Your task to perform on an android device: What is the recent news? Image 0: 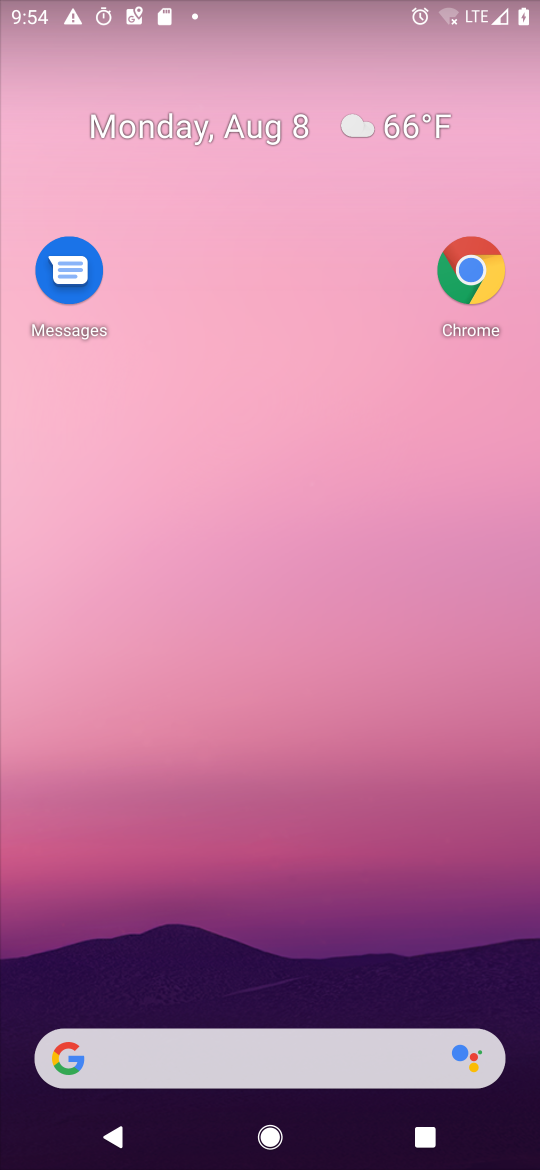
Step 0: click (295, 314)
Your task to perform on an android device: What is the recent news? Image 1: 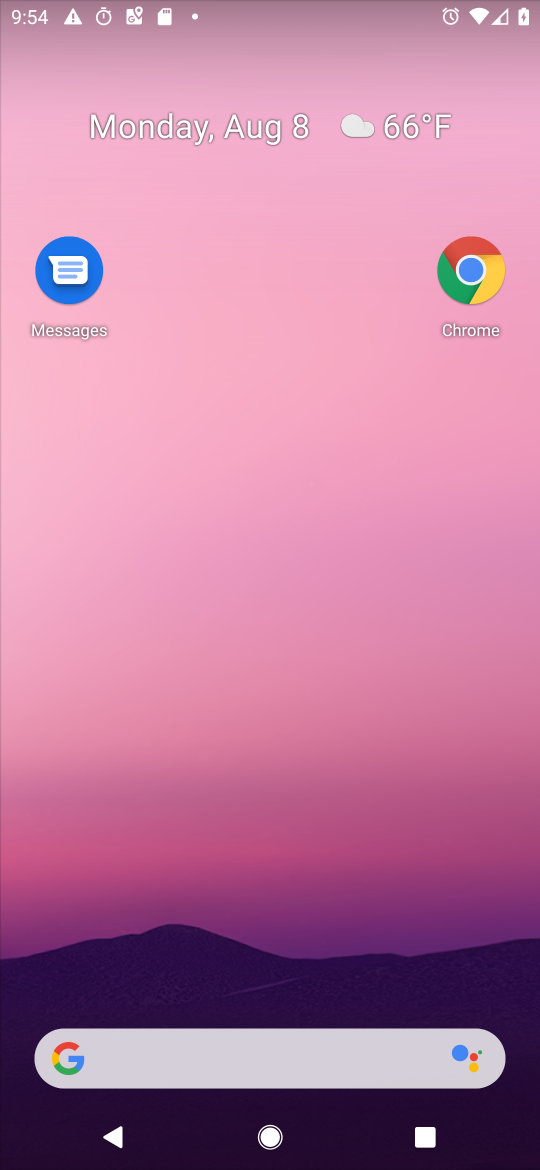
Step 1: drag from (350, 74) to (416, 8)
Your task to perform on an android device: What is the recent news? Image 2: 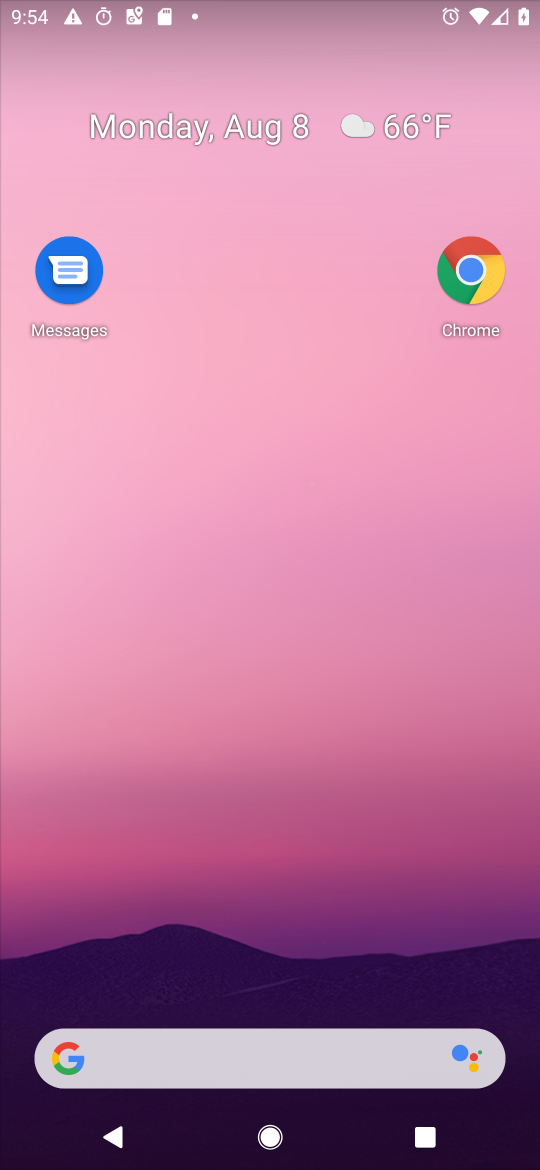
Step 2: drag from (315, 889) to (338, 103)
Your task to perform on an android device: What is the recent news? Image 3: 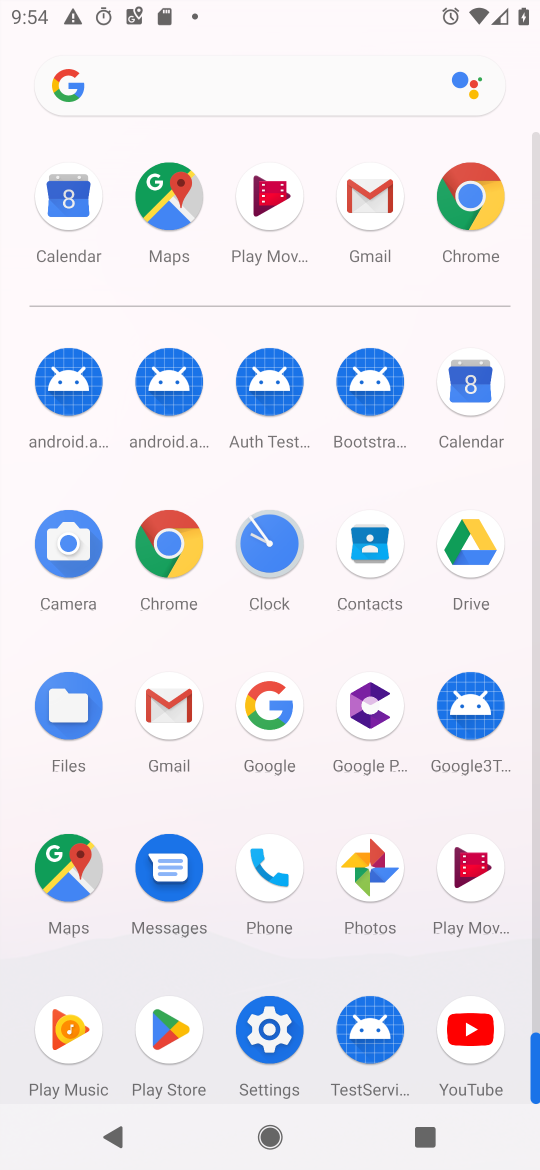
Step 3: click (307, 461)
Your task to perform on an android device: What is the recent news? Image 4: 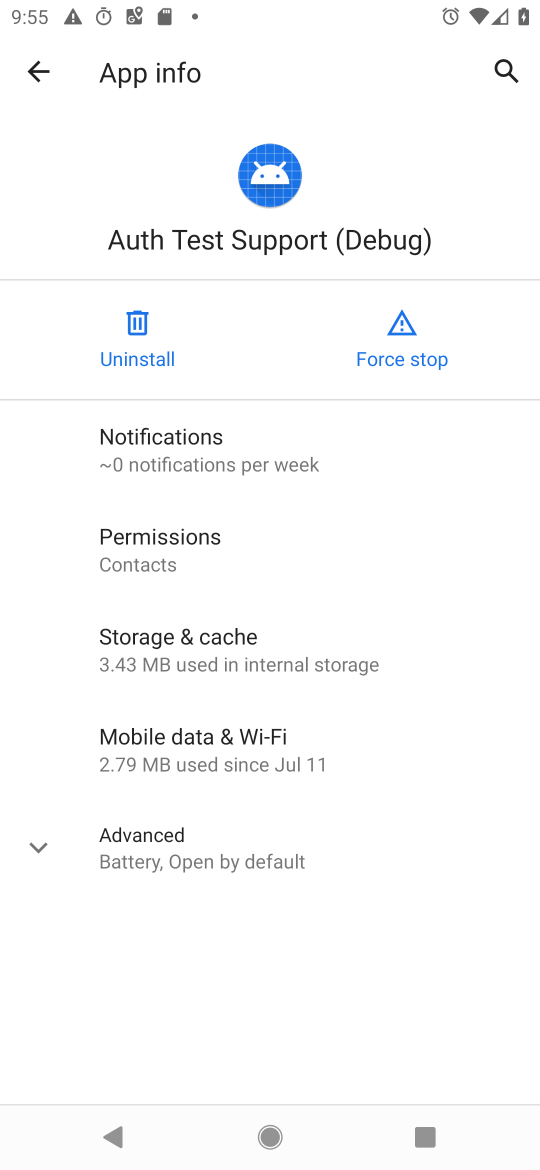
Step 4: press home button
Your task to perform on an android device: What is the recent news? Image 5: 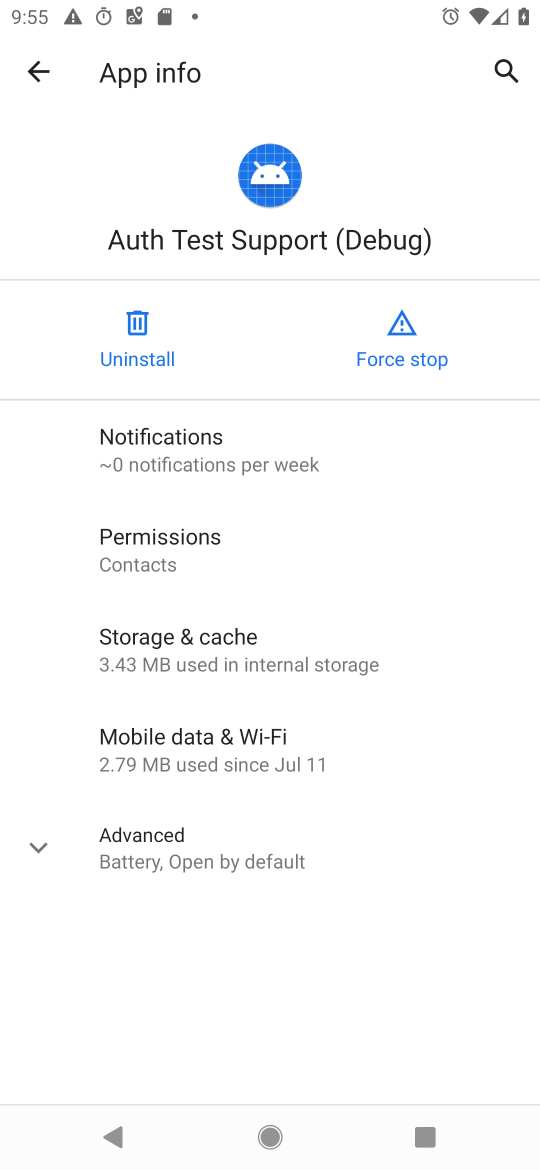
Step 5: press home button
Your task to perform on an android device: What is the recent news? Image 6: 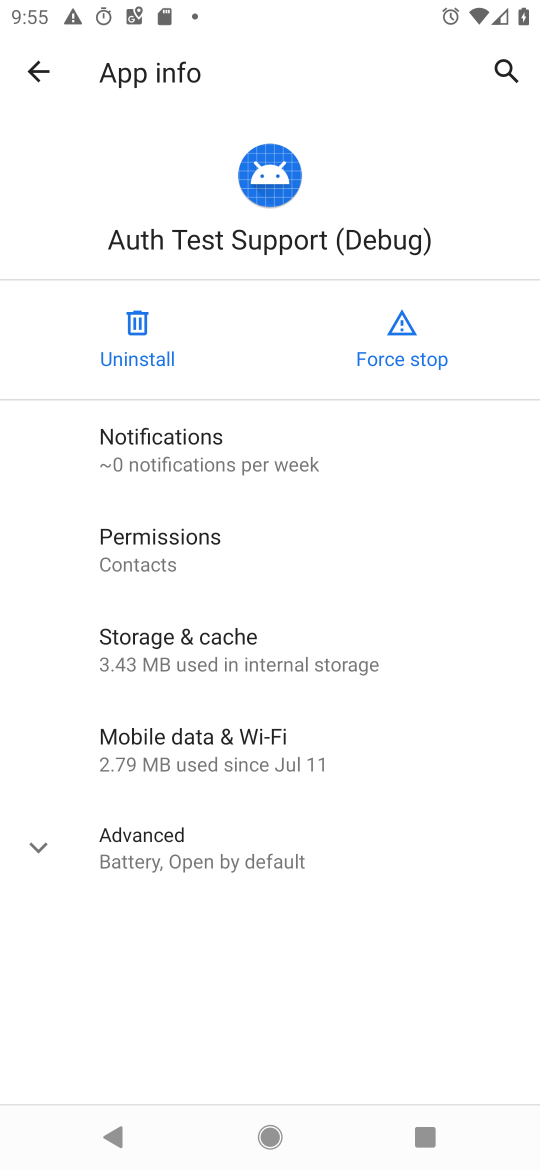
Step 6: click (326, 194)
Your task to perform on an android device: What is the recent news? Image 7: 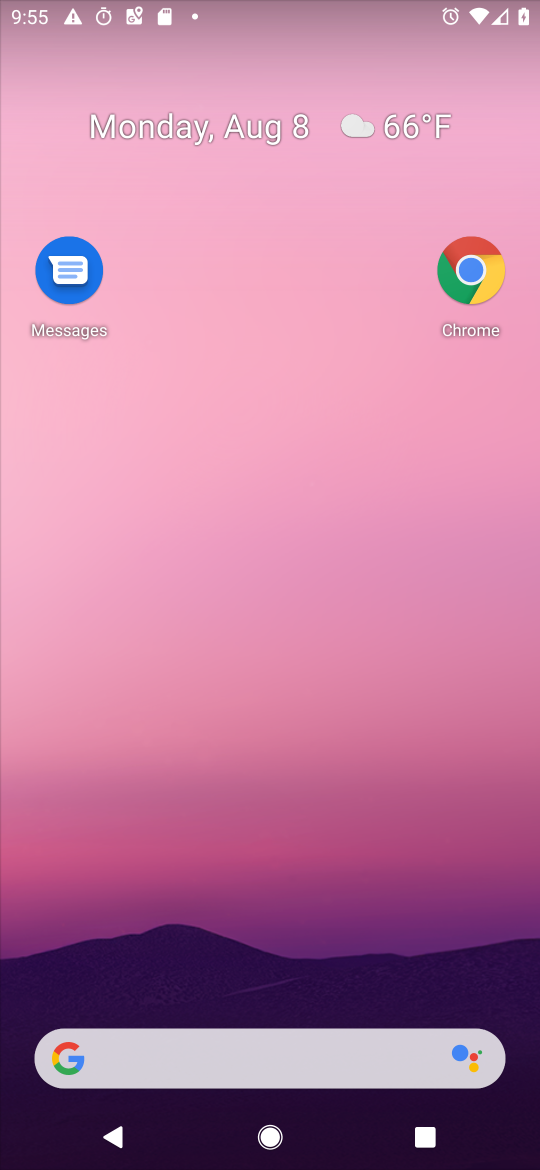
Step 7: drag from (335, 814) to (361, 123)
Your task to perform on an android device: What is the recent news? Image 8: 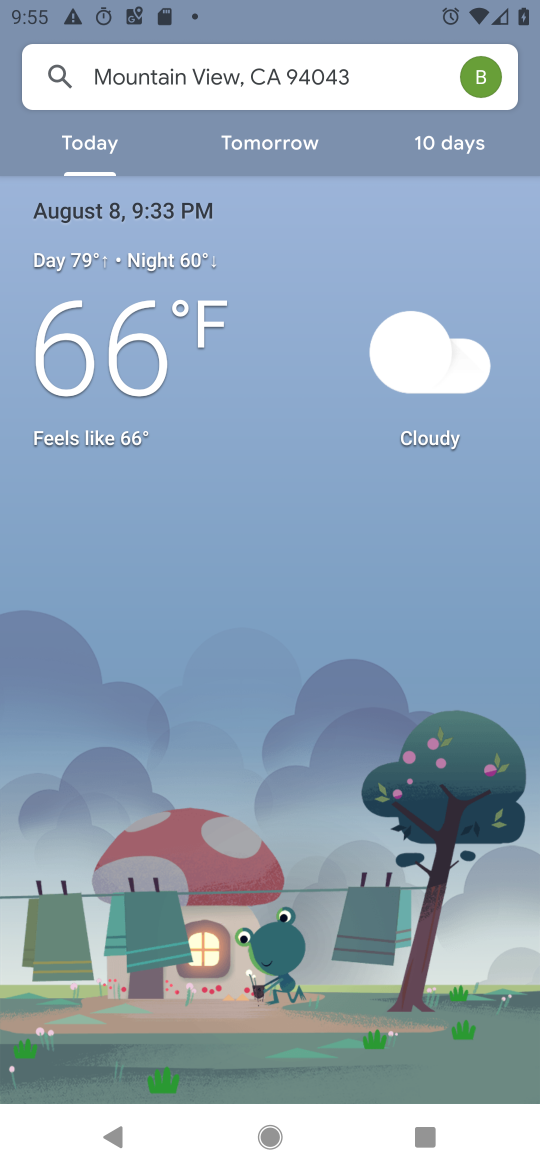
Step 8: press home button
Your task to perform on an android device: What is the recent news? Image 9: 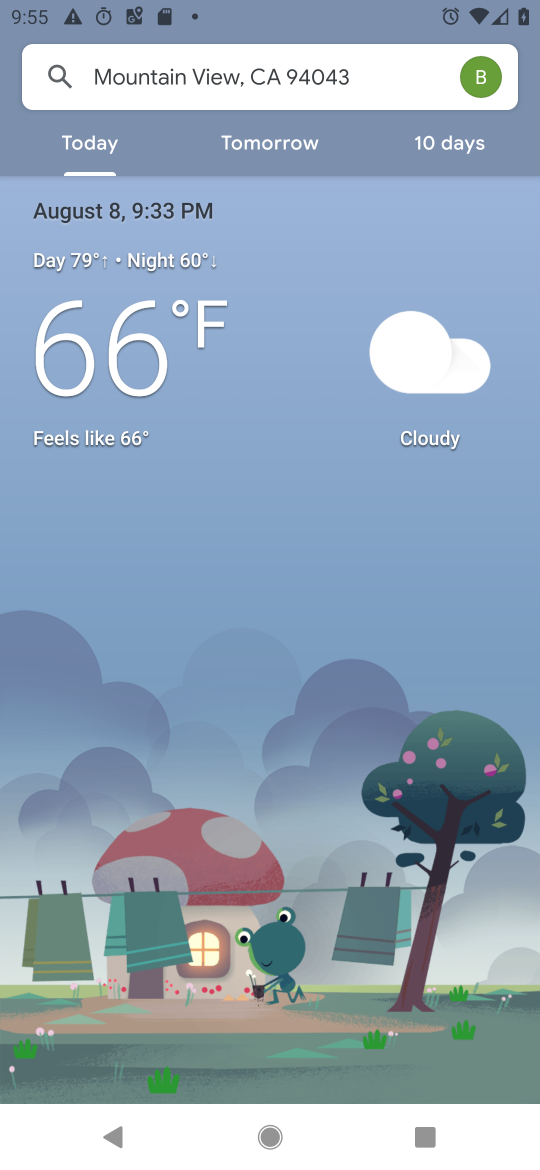
Step 9: press home button
Your task to perform on an android device: What is the recent news? Image 10: 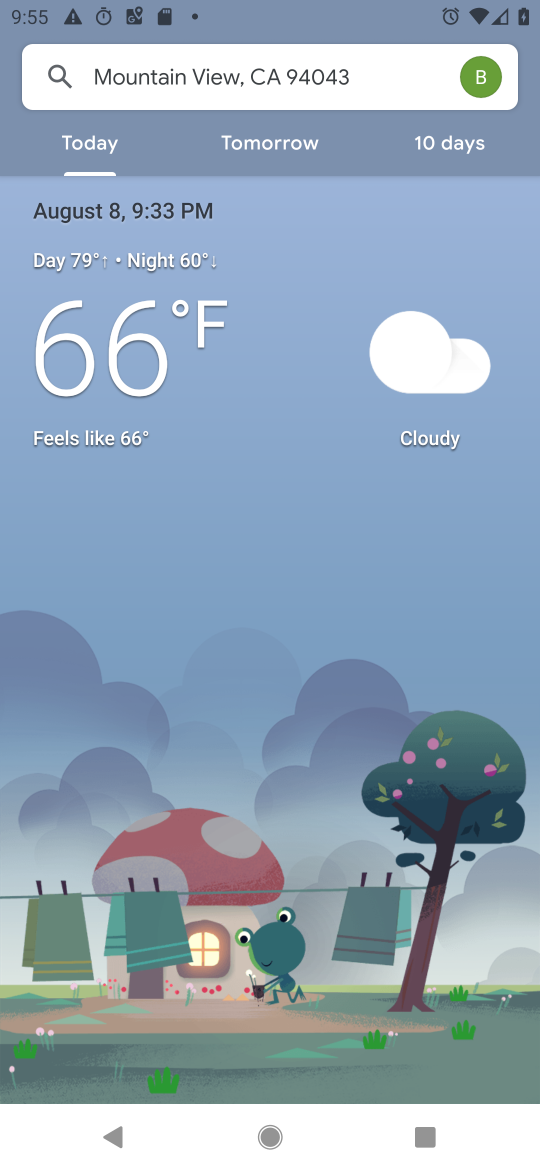
Step 10: click (329, 55)
Your task to perform on an android device: What is the recent news? Image 11: 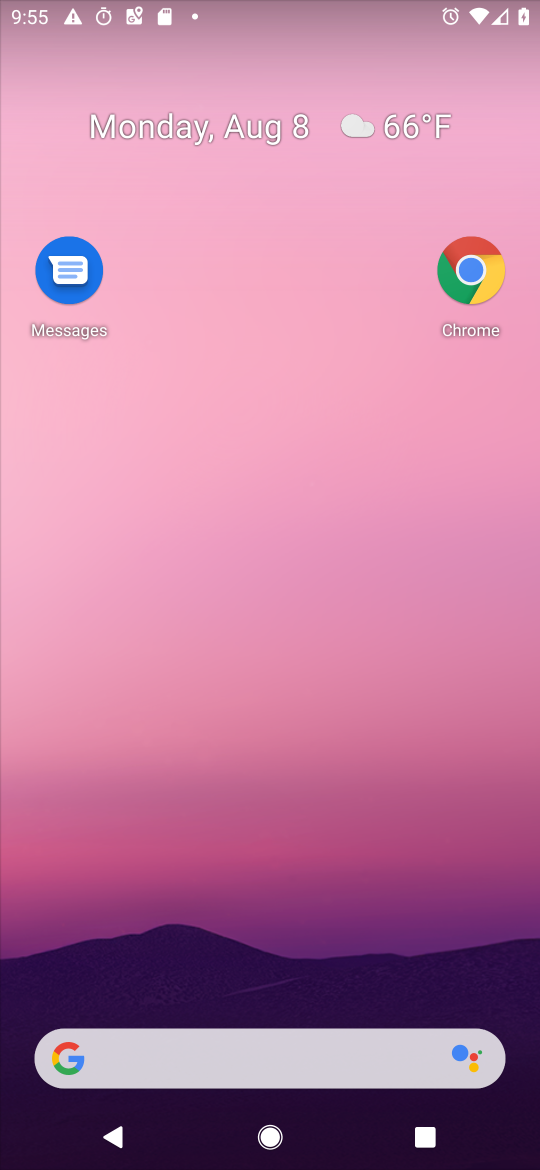
Step 11: drag from (242, 910) to (232, 155)
Your task to perform on an android device: What is the recent news? Image 12: 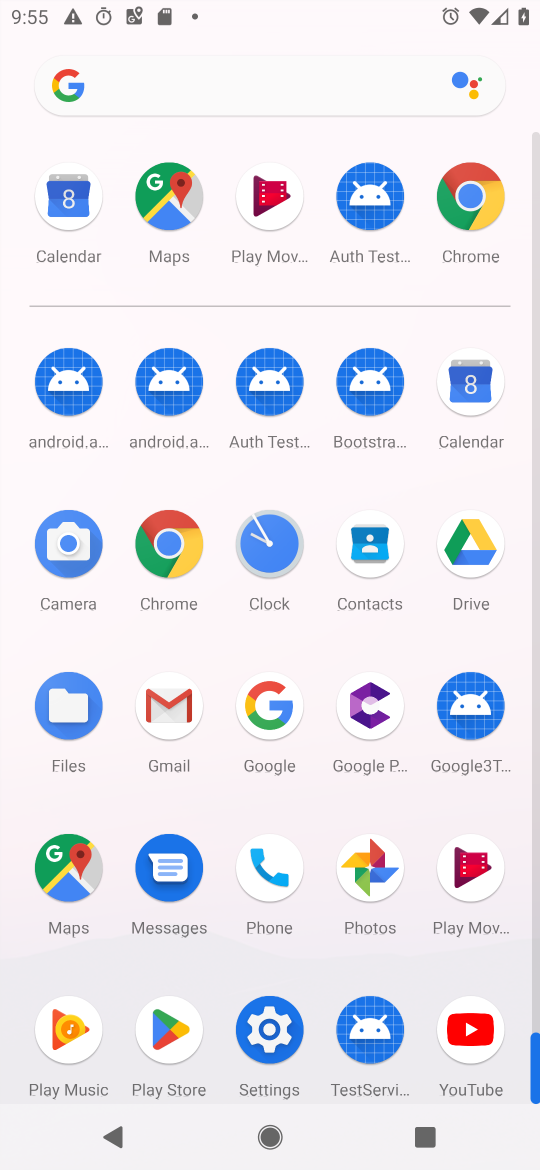
Step 12: click (238, 83)
Your task to perform on an android device: What is the recent news? Image 13: 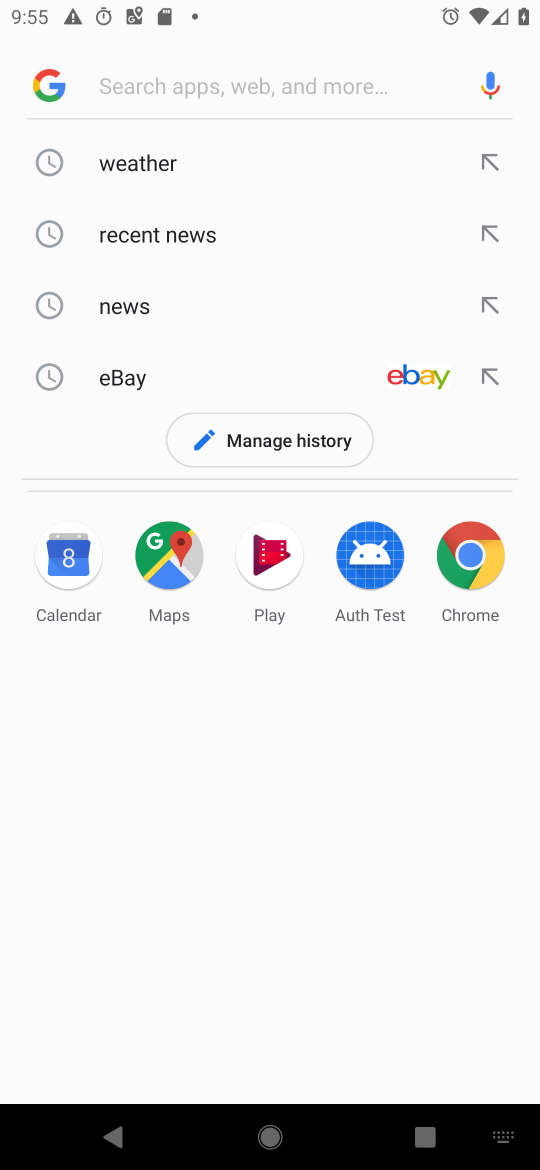
Step 13: type "recent news?"
Your task to perform on an android device: What is the recent news? Image 14: 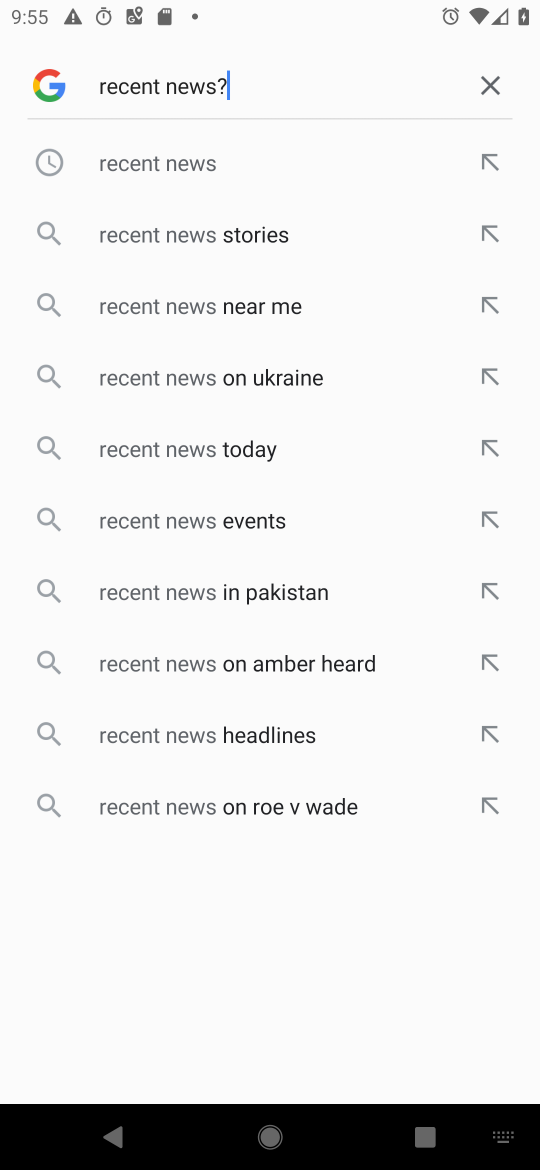
Step 14: type ""
Your task to perform on an android device: What is the recent news? Image 15: 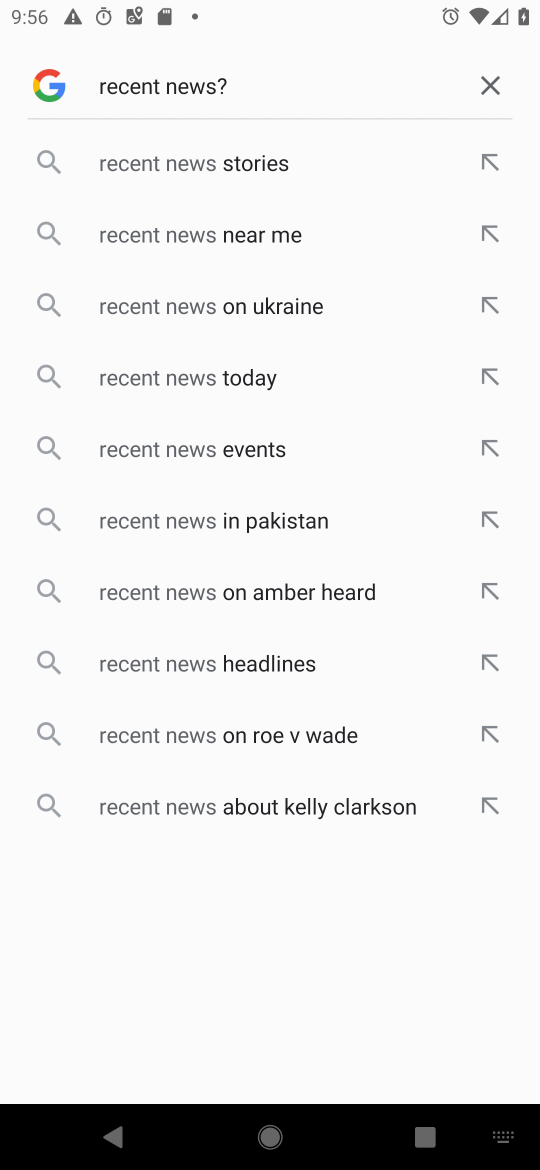
Step 15: click (221, 377)
Your task to perform on an android device: What is the recent news? Image 16: 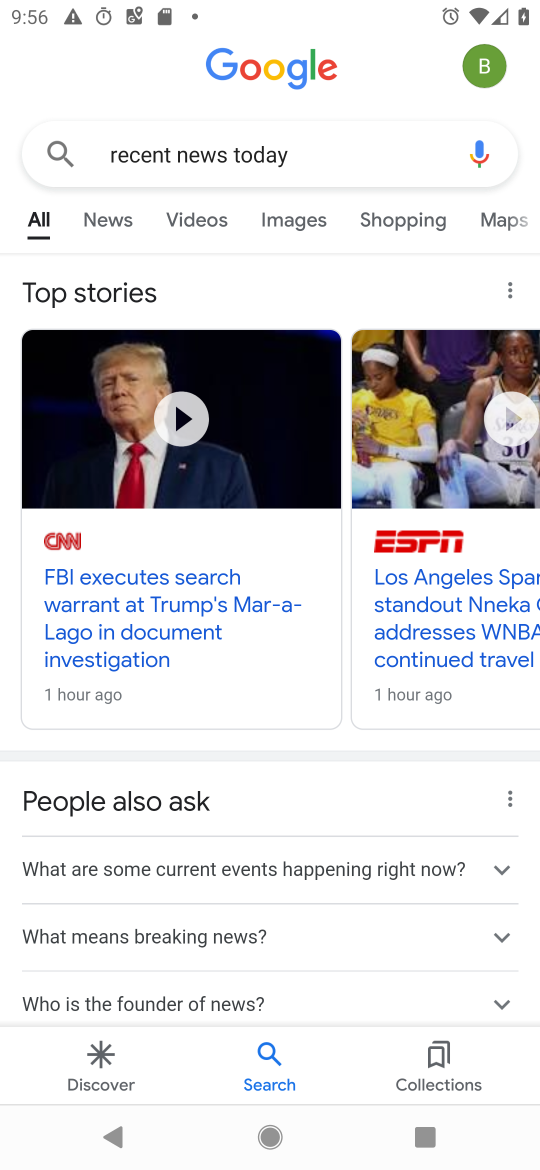
Step 16: task complete